Your task to perform on an android device: turn on airplane mode Image 0: 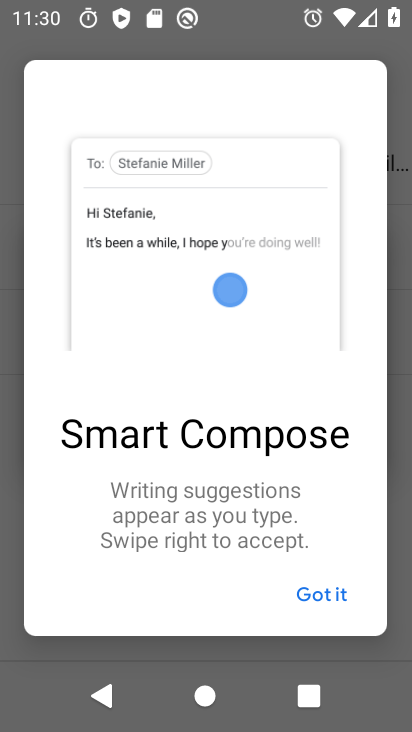
Step 0: press home button
Your task to perform on an android device: turn on airplane mode Image 1: 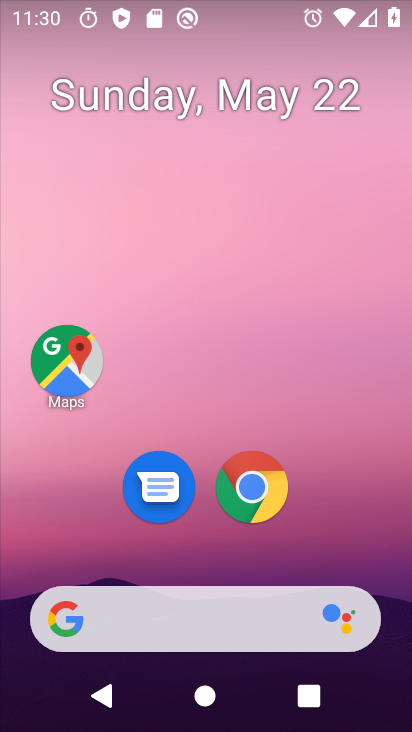
Step 1: drag from (380, 538) to (345, 196)
Your task to perform on an android device: turn on airplane mode Image 2: 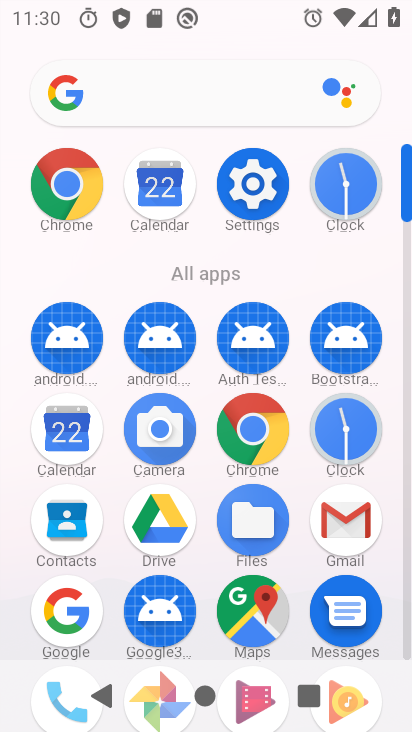
Step 2: click (250, 186)
Your task to perform on an android device: turn on airplane mode Image 3: 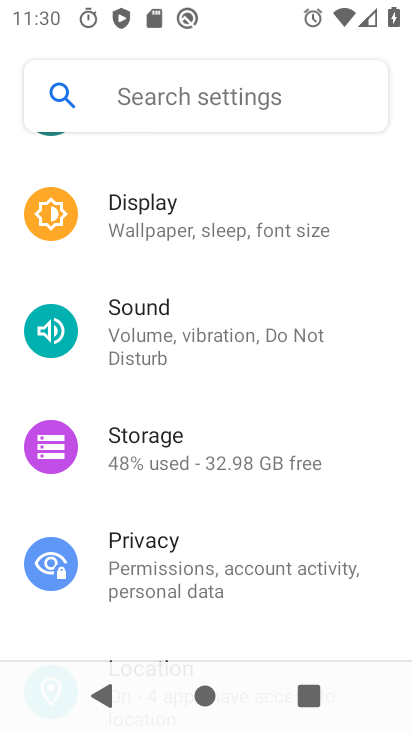
Step 3: drag from (249, 186) to (275, 519)
Your task to perform on an android device: turn on airplane mode Image 4: 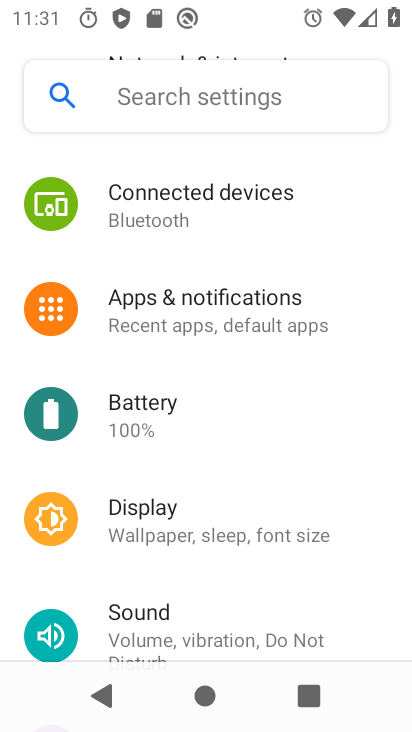
Step 4: drag from (255, 583) to (245, 290)
Your task to perform on an android device: turn on airplane mode Image 5: 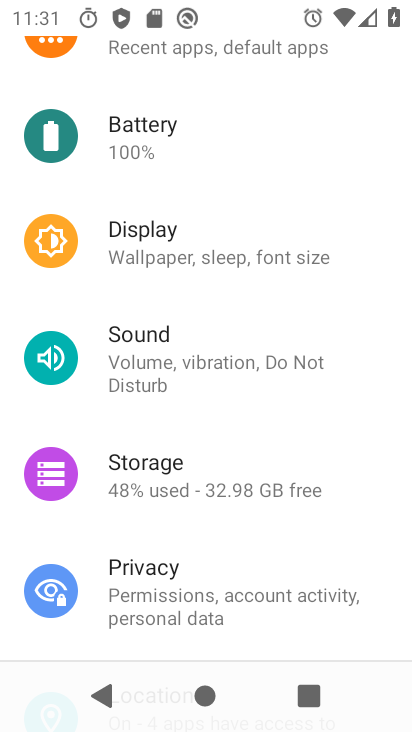
Step 5: drag from (250, 132) to (233, 506)
Your task to perform on an android device: turn on airplane mode Image 6: 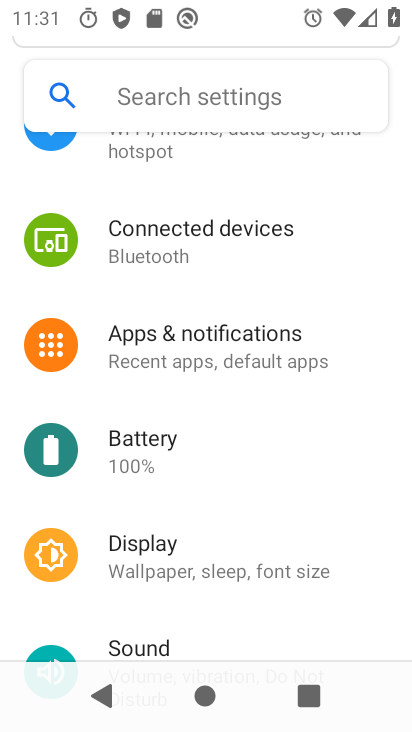
Step 6: drag from (224, 230) to (227, 467)
Your task to perform on an android device: turn on airplane mode Image 7: 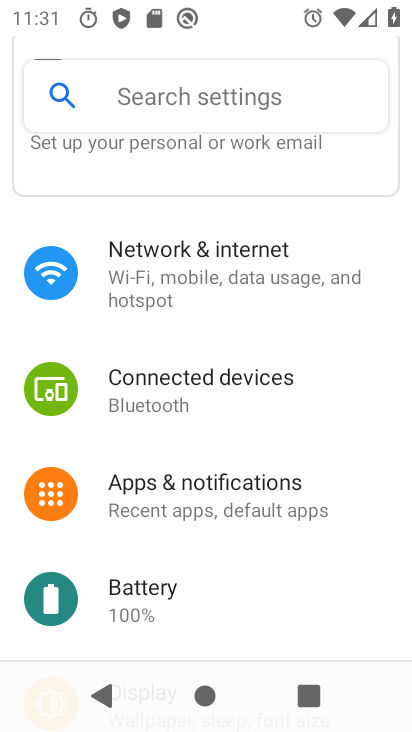
Step 7: click (200, 274)
Your task to perform on an android device: turn on airplane mode Image 8: 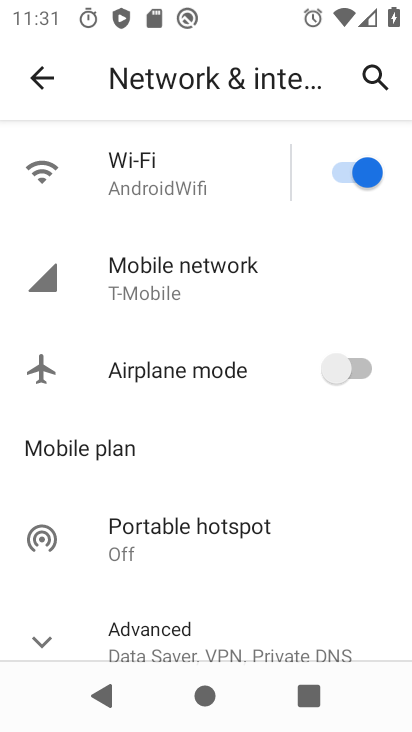
Step 8: click (211, 368)
Your task to perform on an android device: turn on airplane mode Image 9: 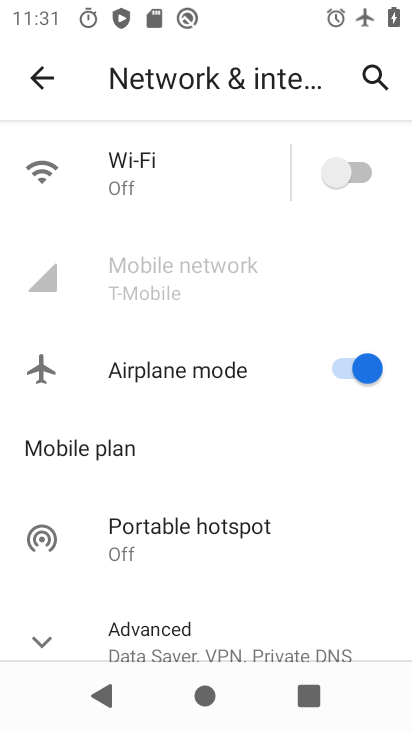
Step 9: task complete